Your task to perform on an android device: Is it going to rain today? Image 0: 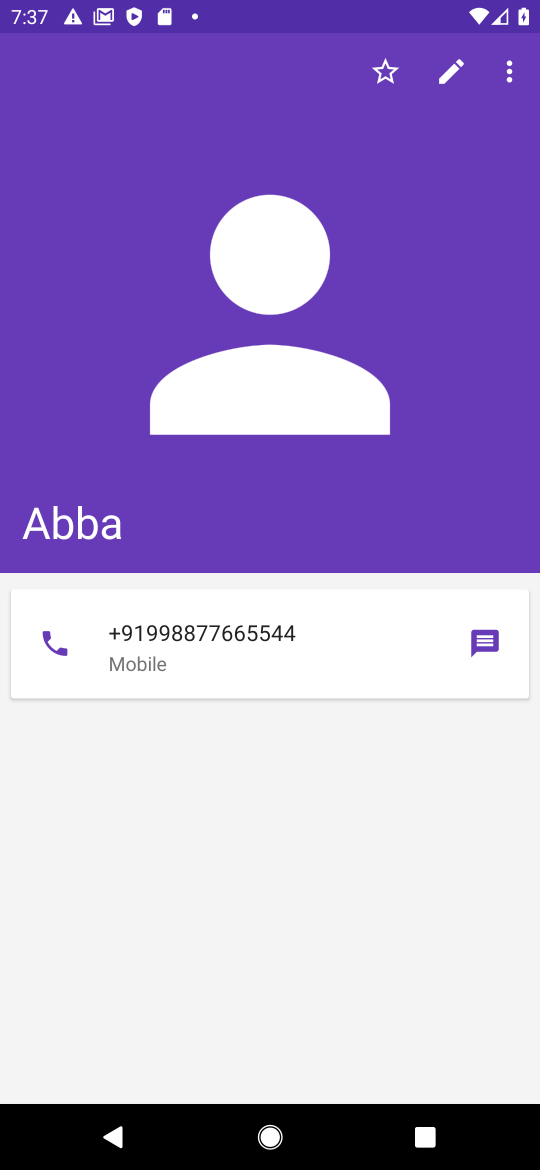
Step 0: press home button
Your task to perform on an android device: Is it going to rain today? Image 1: 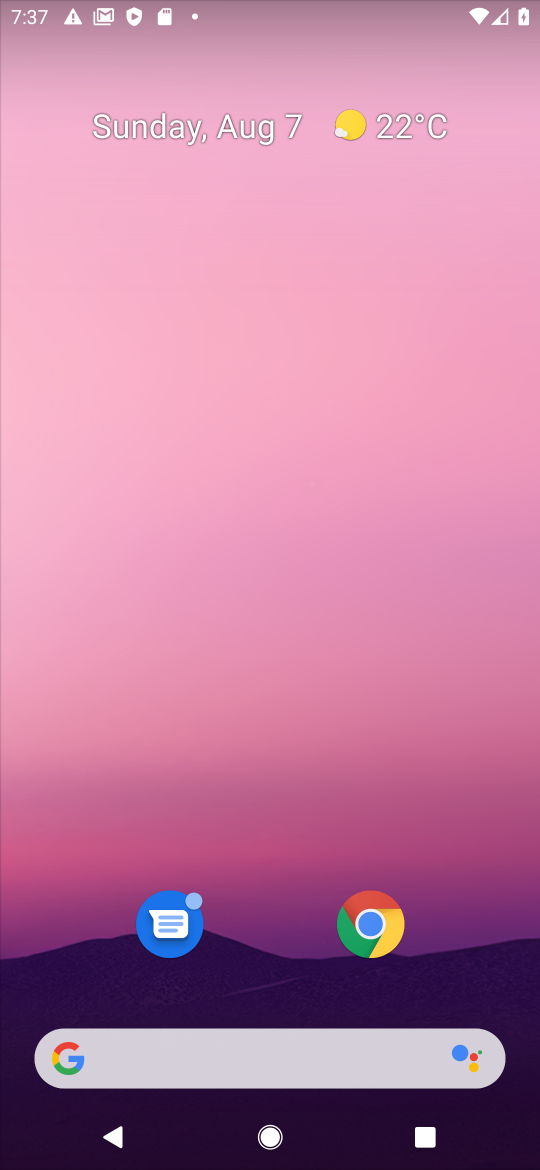
Step 1: click (396, 129)
Your task to perform on an android device: Is it going to rain today? Image 2: 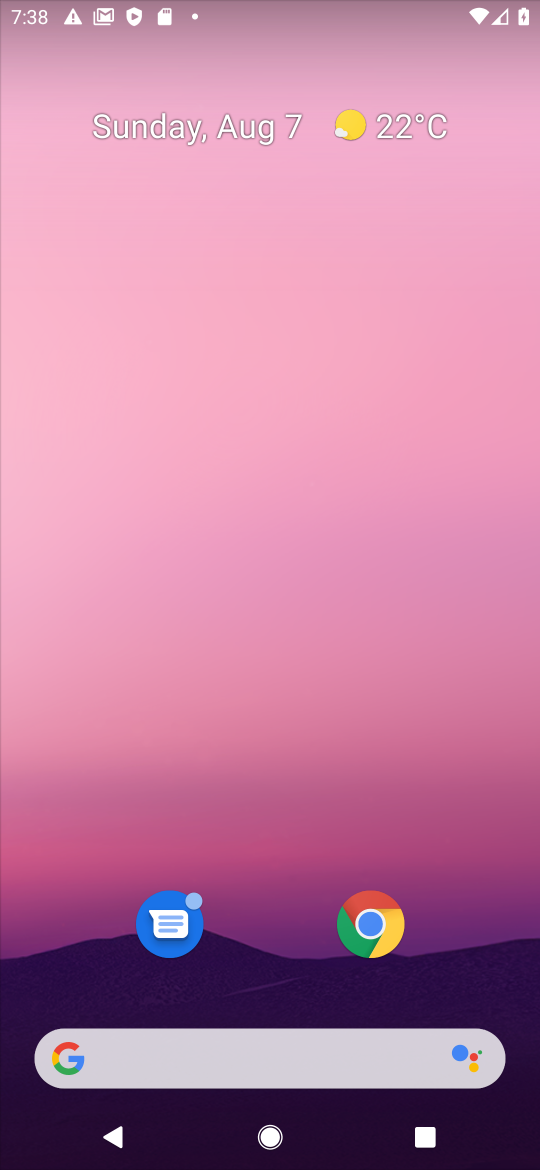
Step 2: click (228, 1055)
Your task to perform on an android device: Is it going to rain today? Image 3: 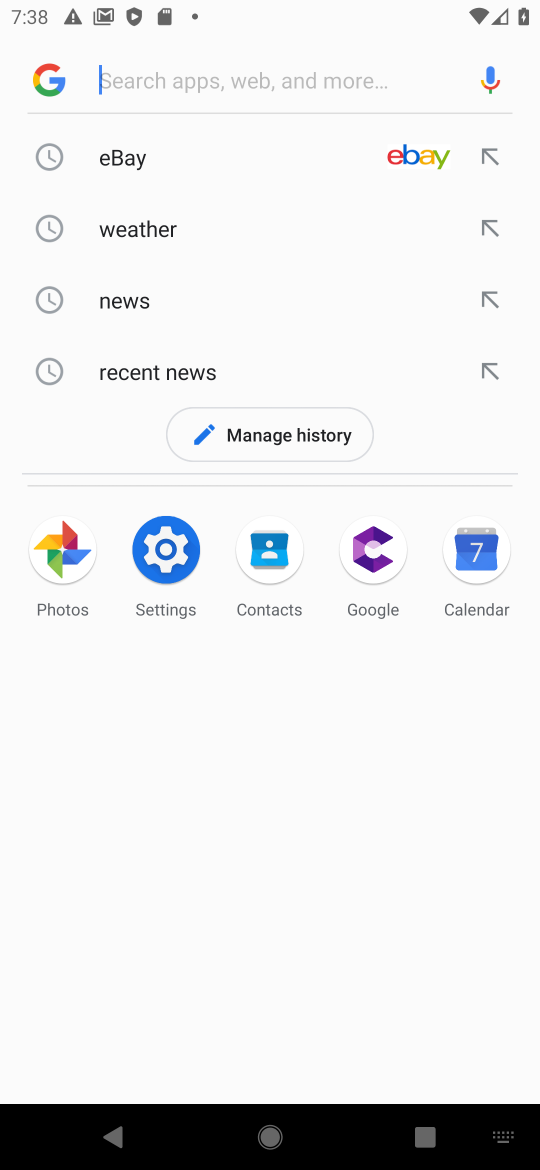
Step 3: click (151, 233)
Your task to perform on an android device: Is it going to rain today? Image 4: 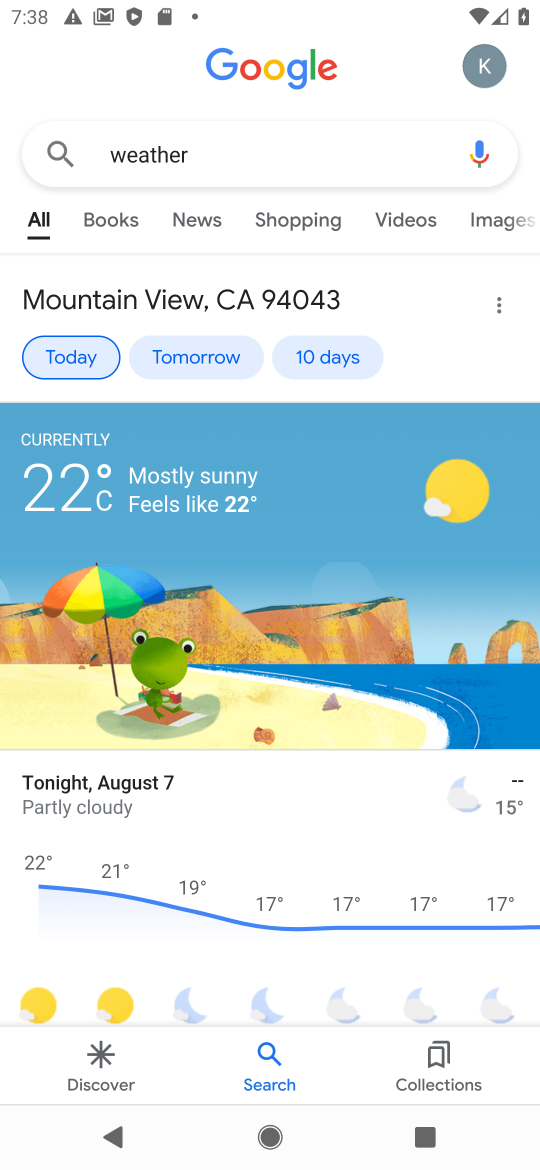
Step 4: task complete